Your task to perform on an android device: Go to calendar. Show me events next week Image 0: 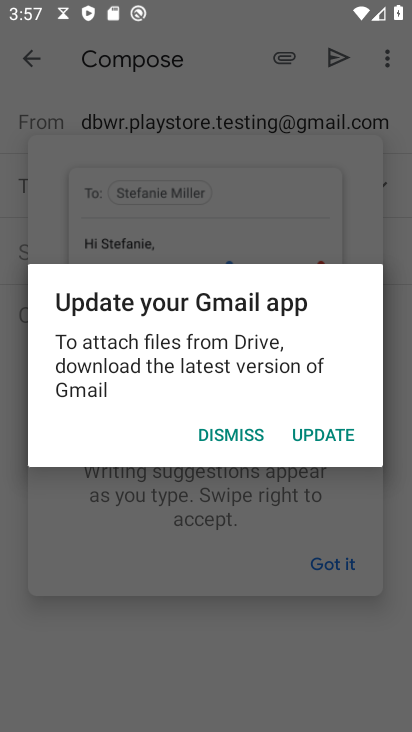
Step 0: press home button
Your task to perform on an android device: Go to calendar. Show me events next week Image 1: 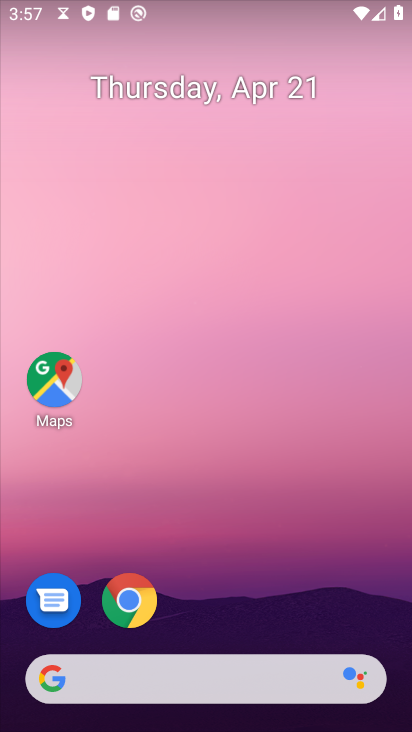
Step 1: drag from (250, 606) to (231, 40)
Your task to perform on an android device: Go to calendar. Show me events next week Image 2: 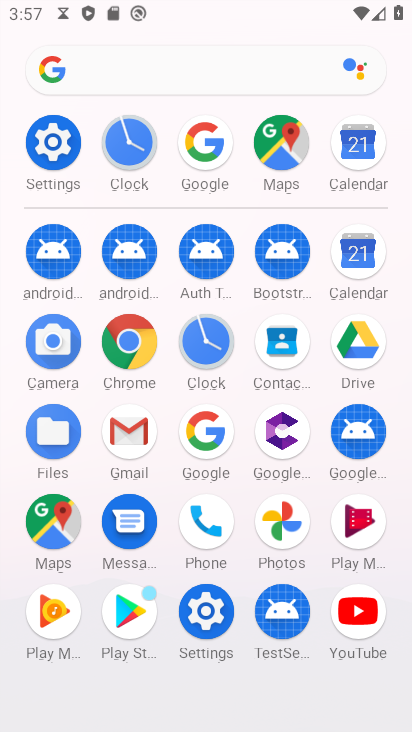
Step 2: click (357, 145)
Your task to perform on an android device: Go to calendar. Show me events next week Image 3: 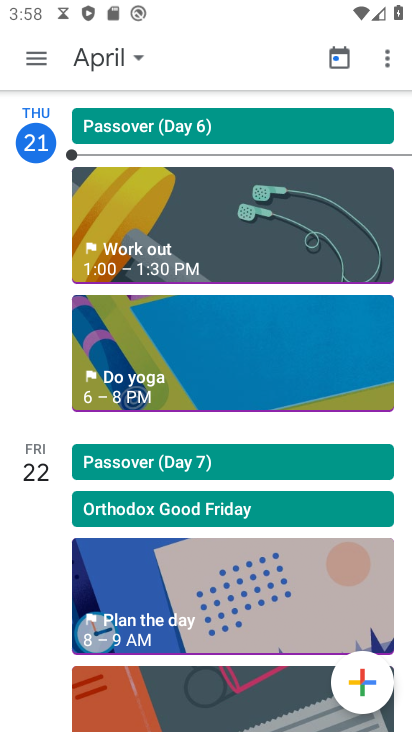
Step 3: click (135, 58)
Your task to perform on an android device: Go to calendar. Show me events next week Image 4: 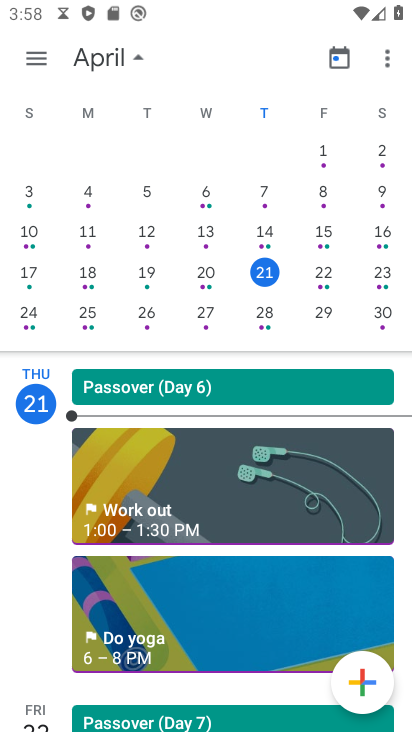
Step 4: click (143, 309)
Your task to perform on an android device: Go to calendar. Show me events next week Image 5: 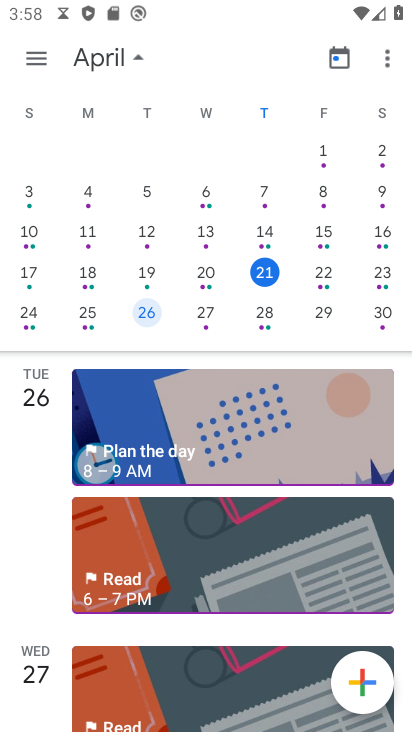
Step 5: click (29, 52)
Your task to perform on an android device: Go to calendar. Show me events next week Image 6: 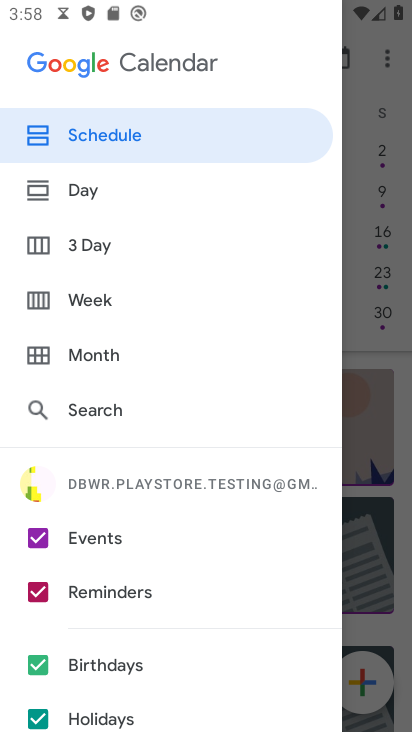
Step 6: click (116, 296)
Your task to perform on an android device: Go to calendar. Show me events next week Image 7: 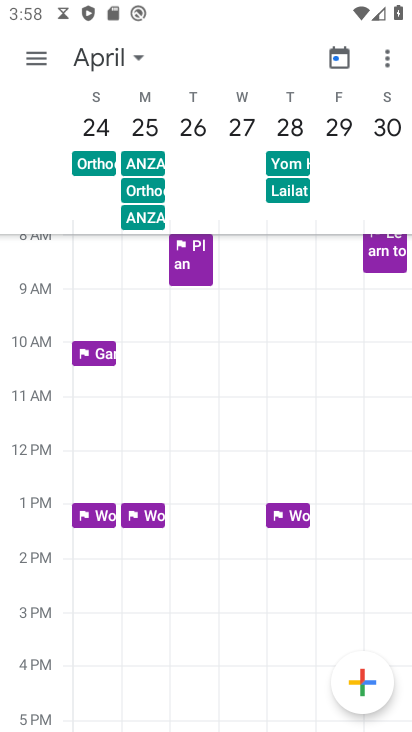
Step 7: task complete